Your task to perform on an android device: Open notification settings Image 0: 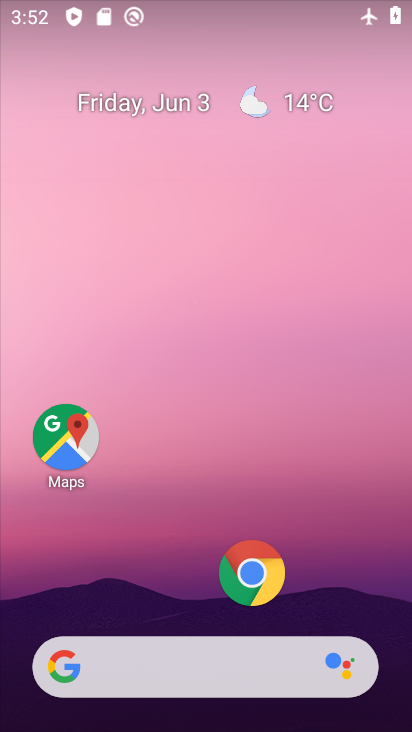
Step 0: drag from (236, 197) to (247, 159)
Your task to perform on an android device: Open notification settings Image 1: 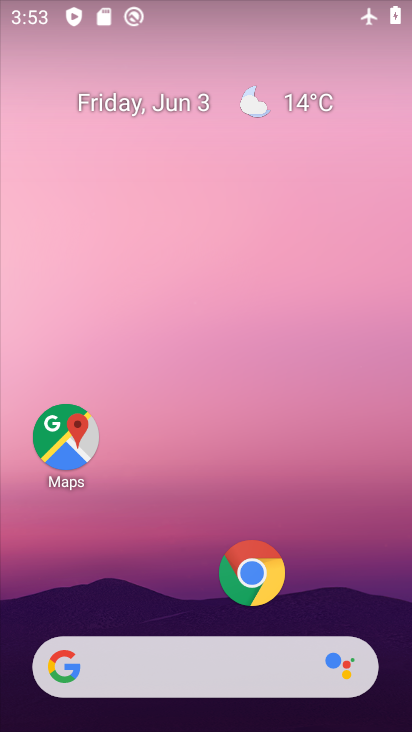
Step 1: drag from (131, 589) to (177, 88)
Your task to perform on an android device: Open notification settings Image 2: 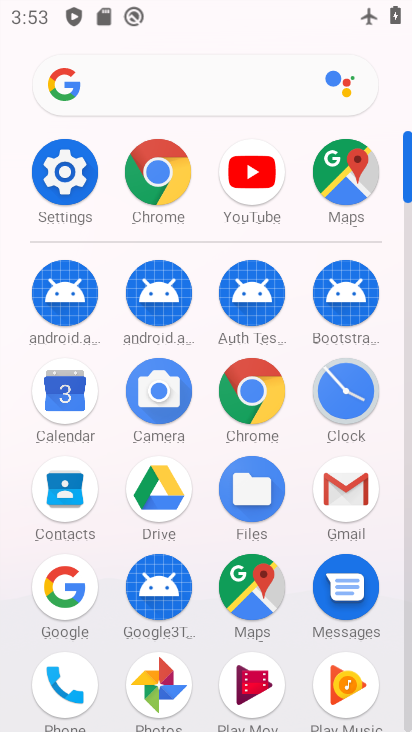
Step 2: click (79, 199)
Your task to perform on an android device: Open notification settings Image 3: 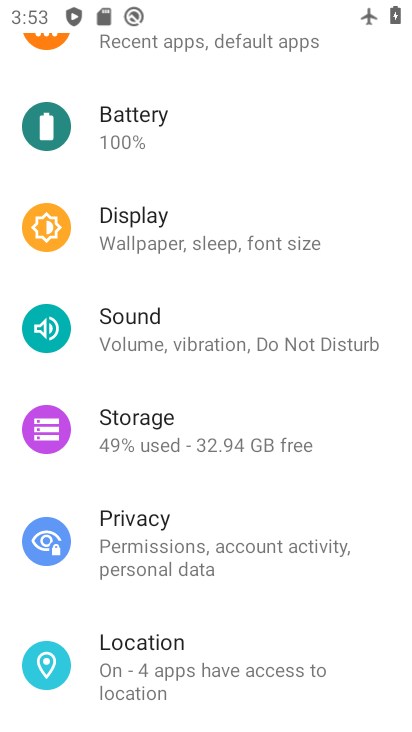
Step 3: drag from (175, 278) to (140, 543)
Your task to perform on an android device: Open notification settings Image 4: 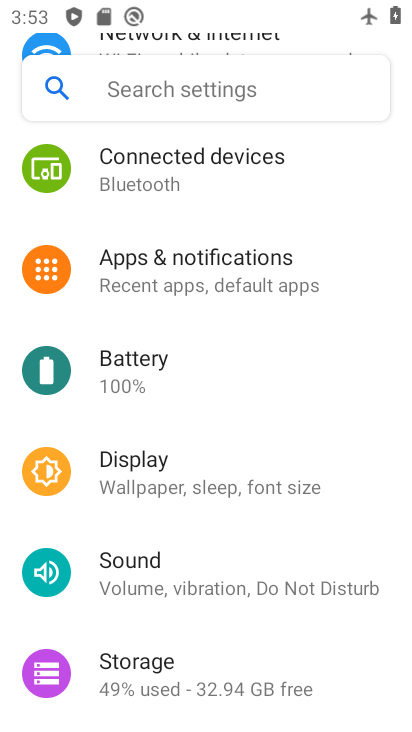
Step 4: drag from (198, 272) to (199, 410)
Your task to perform on an android device: Open notification settings Image 5: 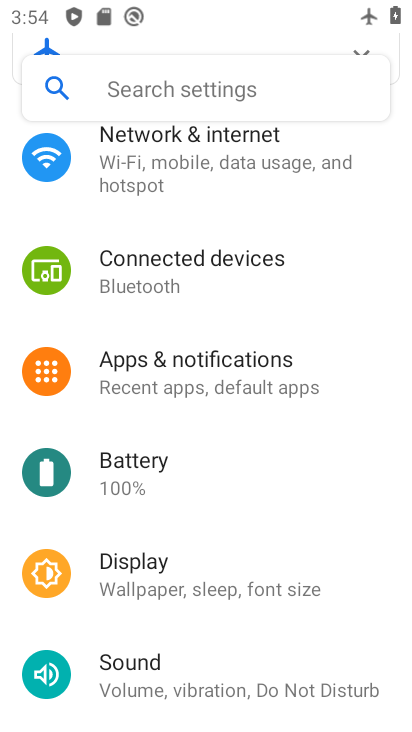
Step 5: click (220, 364)
Your task to perform on an android device: Open notification settings Image 6: 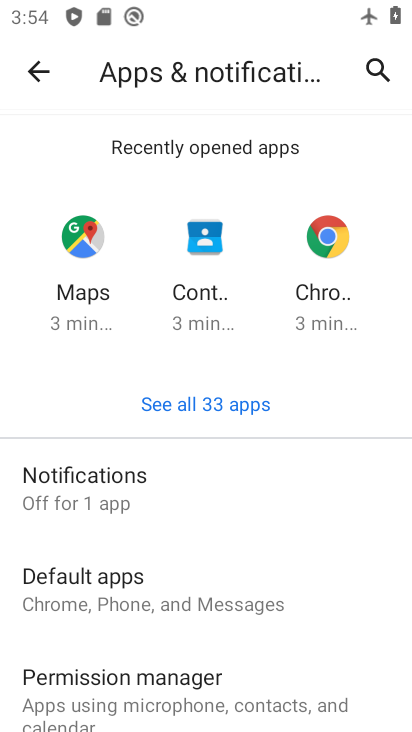
Step 6: drag from (174, 604) to (177, 558)
Your task to perform on an android device: Open notification settings Image 7: 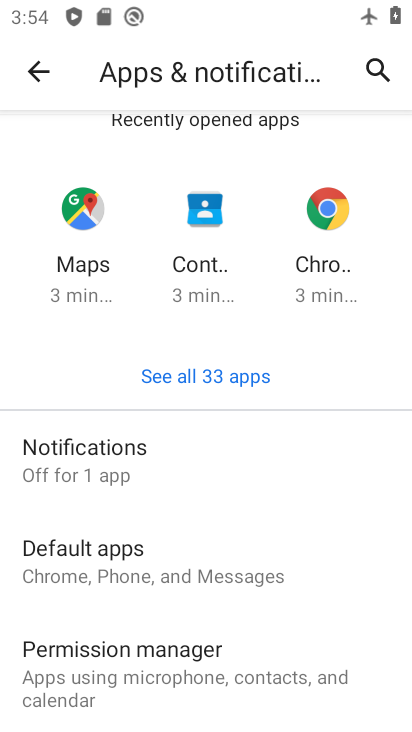
Step 7: click (113, 469)
Your task to perform on an android device: Open notification settings Image 8: 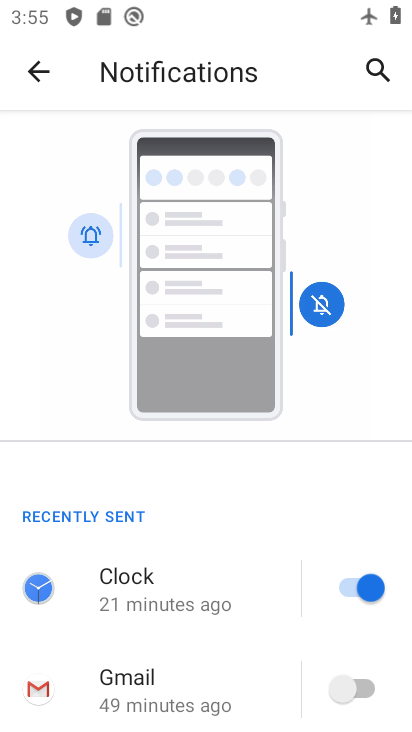
Step 8: task complete